Your task to perform on an android device: Go to Yahoo.com Image 0: 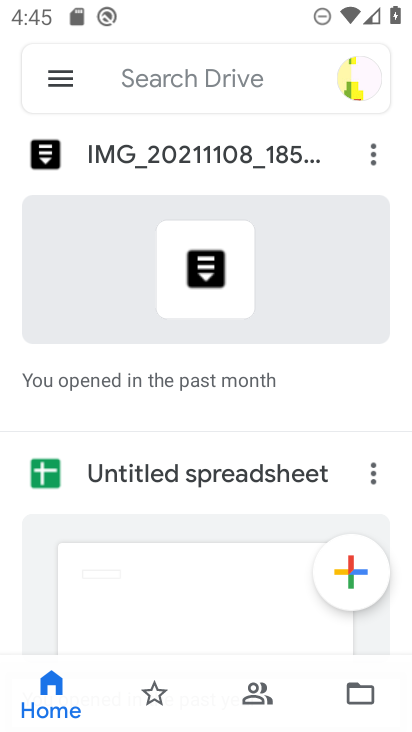
Step 0: press home button
Your task to perform on an android device: Go to Yahoo.com Image 1: 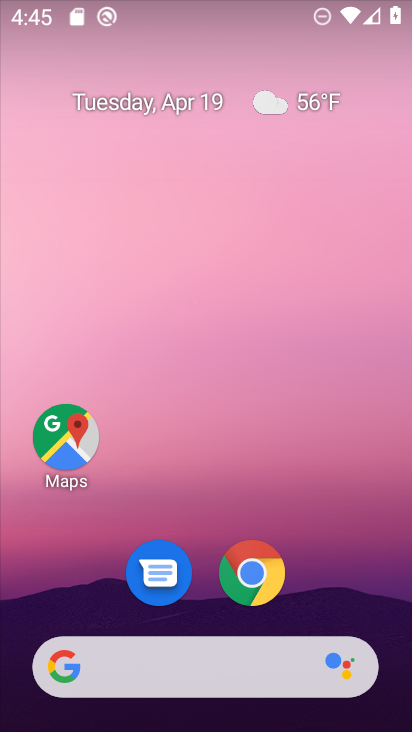
Step 1: click (261, 577)
Your task to perform on an android device: Go to Yahoo.com Image 2: 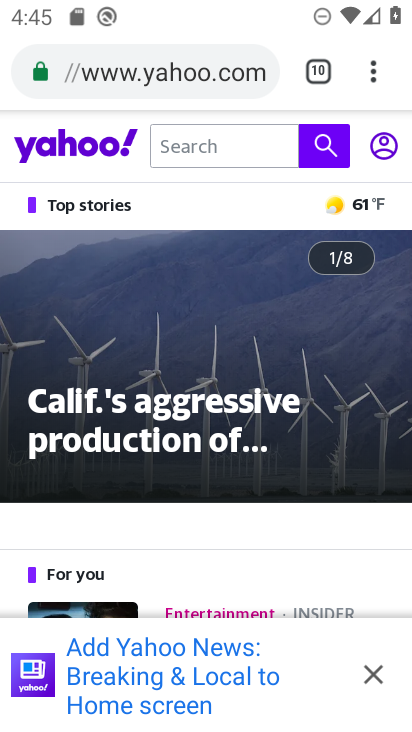
Step 2: task complete